Your task to perform on an android device: show emergency info Image 0: 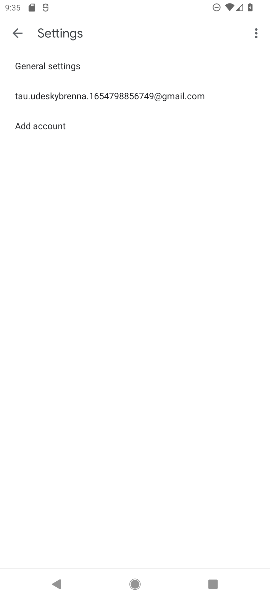
Step 0: drag from (210, 449) to (220, 219)
Your task to perform on an android device: show emergency info Image 1: 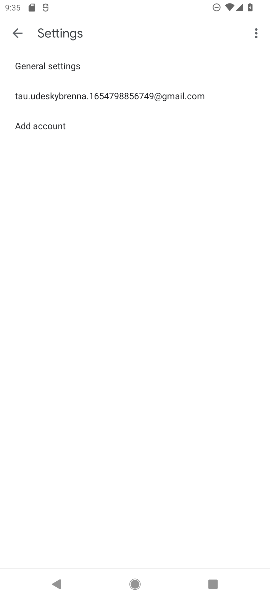
Step 1: drag from (195, 294) to (206, 85)
Your task to perform on an android device: show emergency info Image 2: 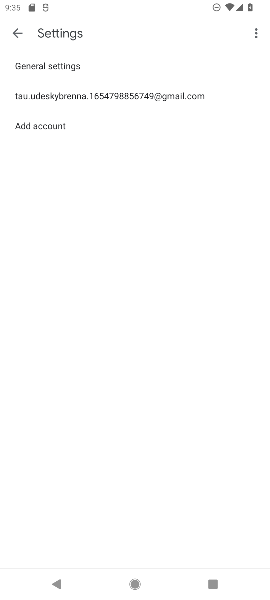
Step 2: press home button
Your task to perform on an android device: show emergency info Image 3: 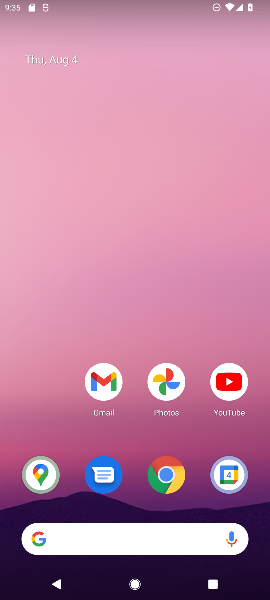
Step 3: drag from (123, 460) to (127, 206)
Your task to perform on an android device: show emergency info Image 4: 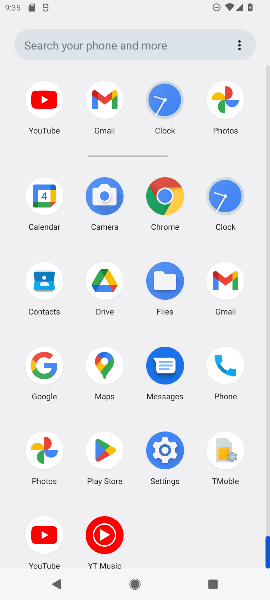
Step 4: click (160, 437)
Your task to perform on an android device: show emergency info Image 5: 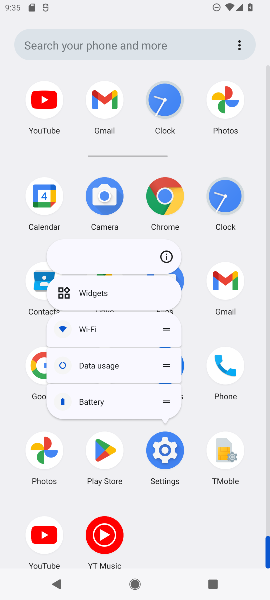
Step 5: click (158, 262)
Your task to perform on an android device: show emergency info Image 6: 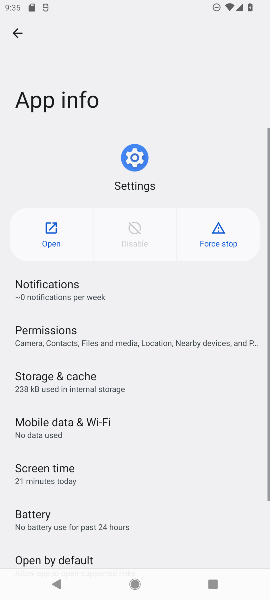
Step 6: click (58, 235)
Your task to perform on an android device: show emergency info Image 7: 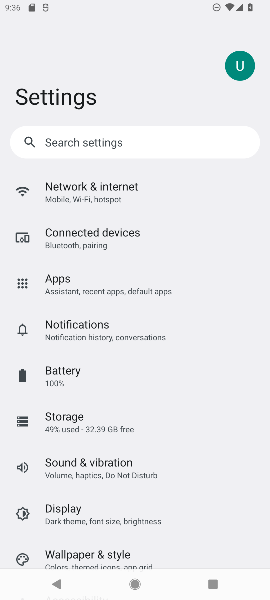
Step 7: drag from (102, 482) to (117, 198)
Your task to perform on an android device: show emergency info Image 8: 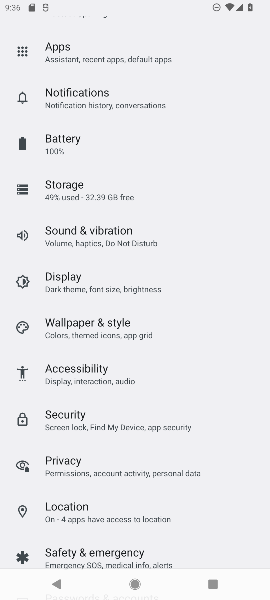
Step 8: drag from (140, 508) to (265, 260)
Your task to perform on an android device: show emergency info Image 9: 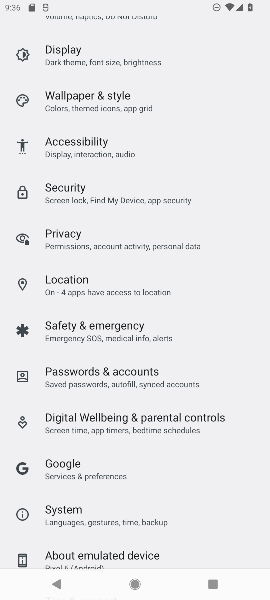
Step 9: click (67, 563)
Your task to perform on an android device: show emergency info Image 10: 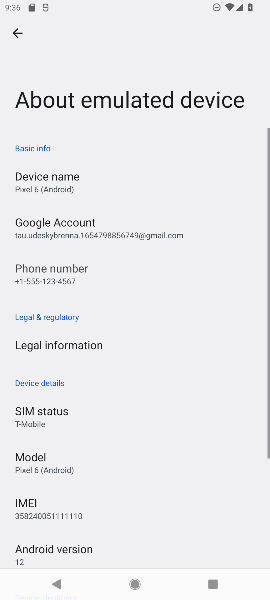
Step 10: drag from (68, 454) to (198, 181)
Your task to perform on an android device: show emergency info Image 11: 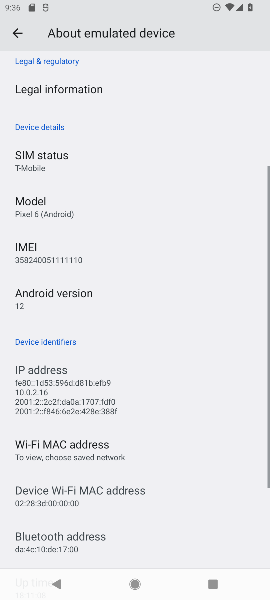
Step 11: drag from (148, 494) to (221, 200)
Your task to perform on an android device: show emergency info Image 12: 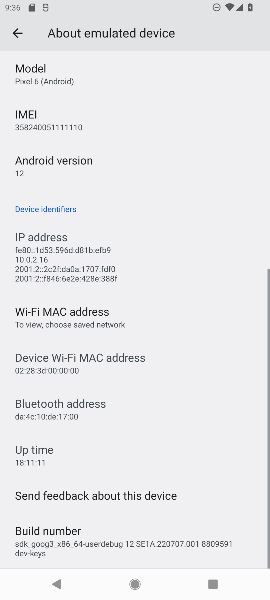
Step 12: drag from (137, 521) to (178, 267)
Your task to perform on an android device: show emergency info Image 13: 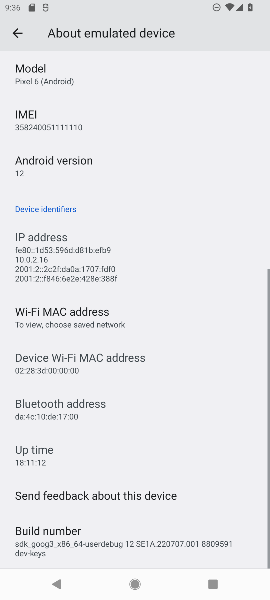
Step 13: drag from (160, 54) to (121, 451)
Your task to perform on an android device: show emergency info Image 14: 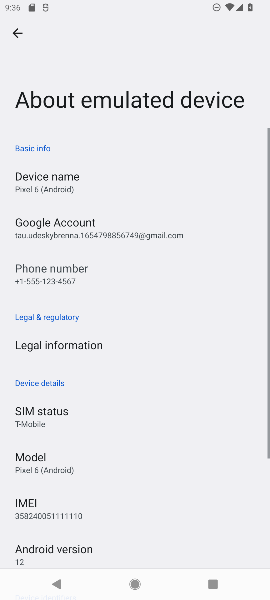
Step 14: click (10, 27)
Your task to perform on an android device: show emergency info Image 15: 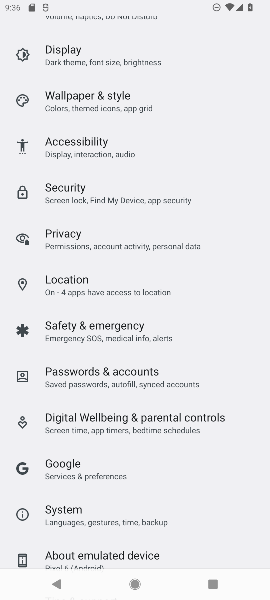
Step 15: click (106, 331)
Your task to perform on an android device: show emergency info Image 16: 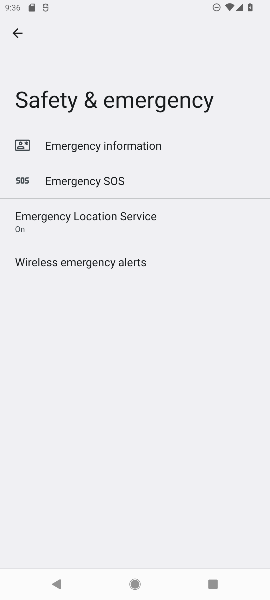
Step 16: drag from (143, 362) to (169, 249)
Your task to perform on an android device: show emergency info Image 17: 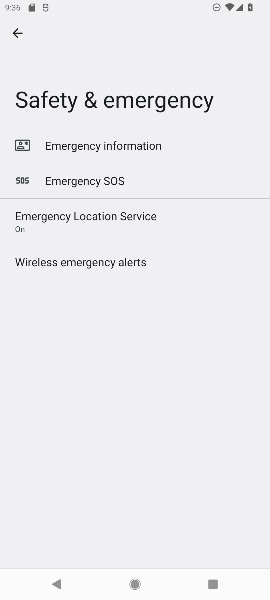
Step 17: click (106, 139)
Your task to perform on an android device: show emergency info Image 18: 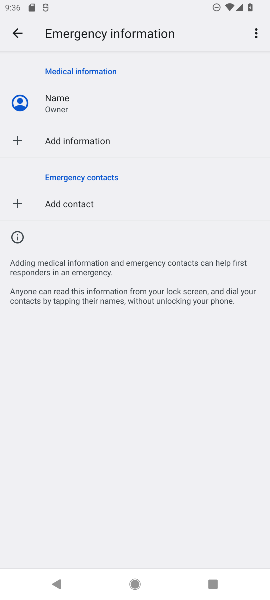
Step 18: task complete